Your task to perform on an android device: check out phone information Image 0: 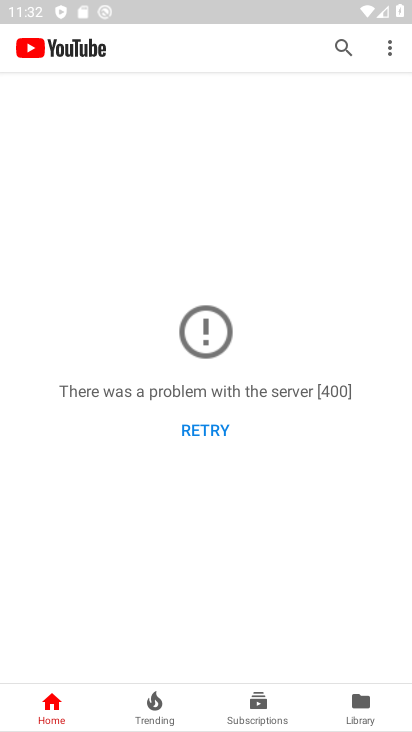
Step 0: press back button
Your task to perform on an android device: check out phone information Image 1: 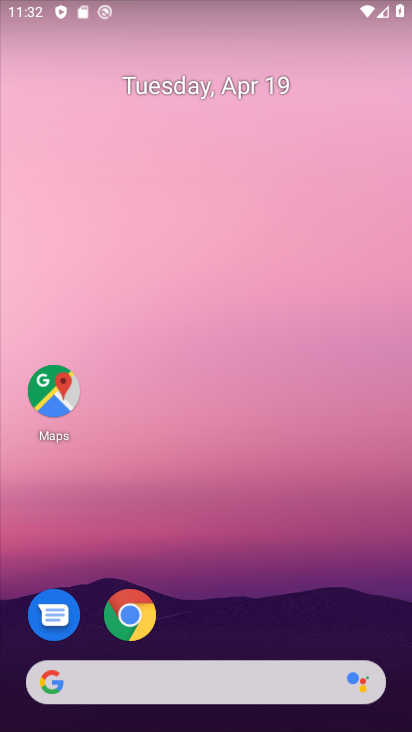
Step 1: drag from (257, 653) to (363, 108)
Your task to perform on an android device: check out phone information Image 2: 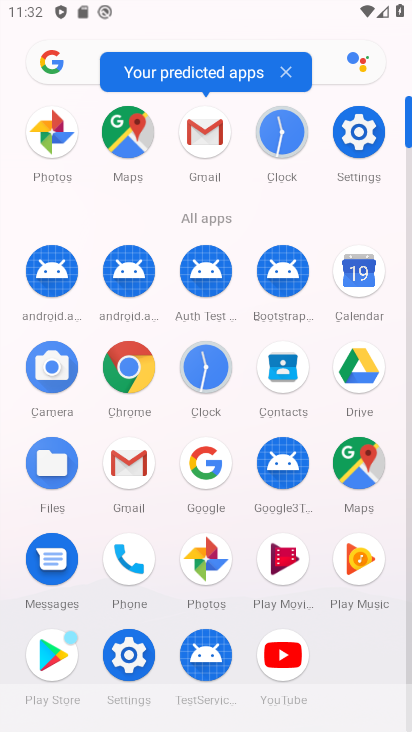
Step 2: click (357, 129)
Your task to perform on an android device: check out phone information Image 3: 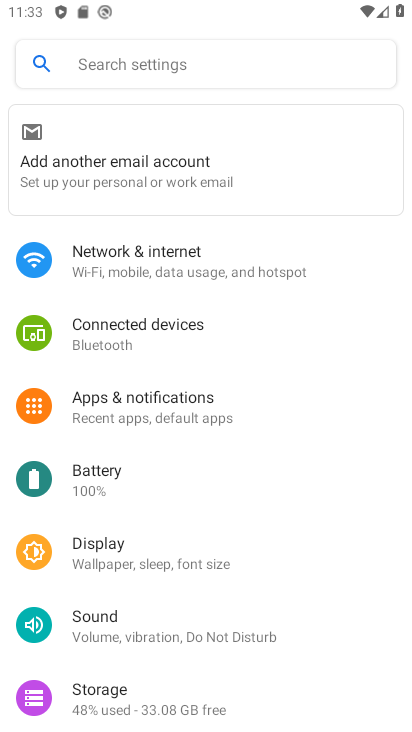
Step 3: drag from (218, 387) to (293, 96)
Your task to perform on an android device: check out phone information Image 4: 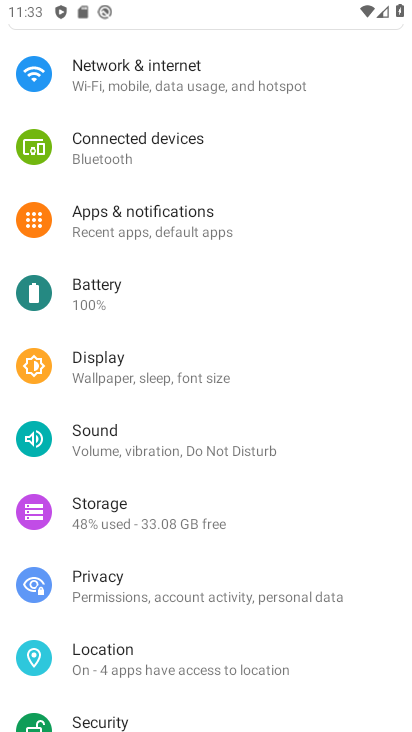
Step 4: drag from (257, 456) to (345, 183)
Your task to perform on an android device: check out phone information Image 5: 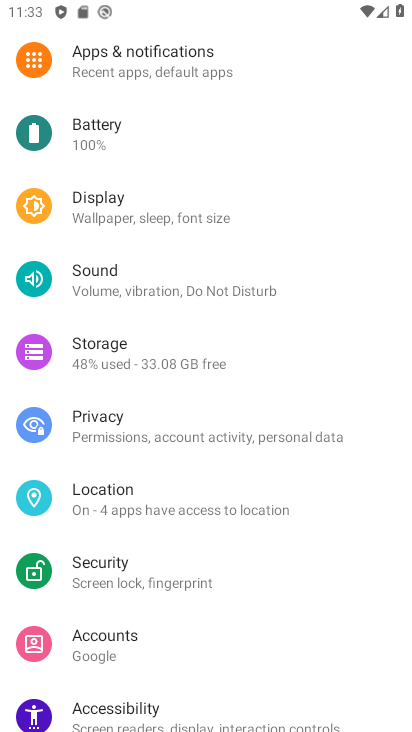
Step 5: drag from (229, 599) to (377, 150)
Your task to perform on an android device: check out phone information Image 6: 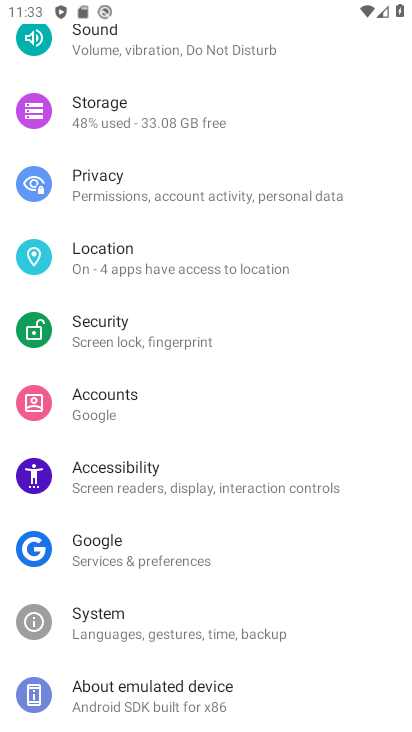
Step 6: drag from (274, 544) to (355, 275)
Your task to perform on an android device: check out phone information Image 7: 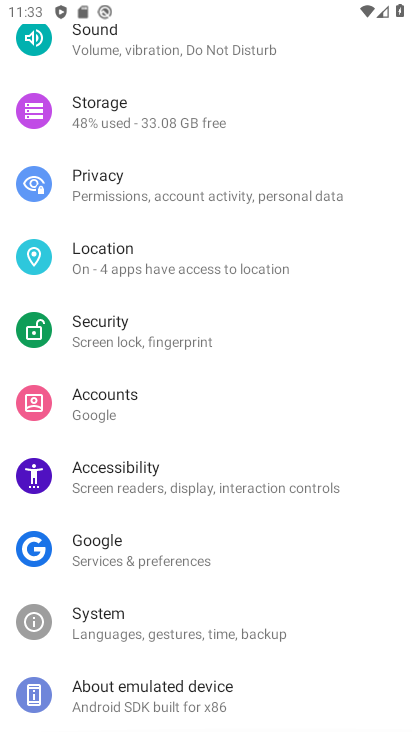
Step 7: click (255, 686)
Your task to perform on an android device: check out phone information Image 8: 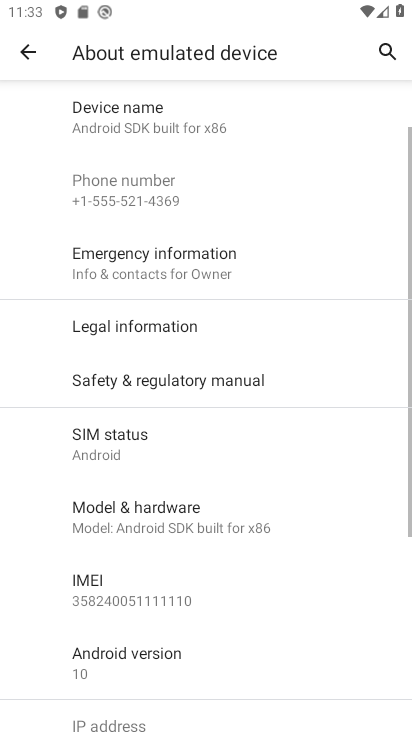
Step 8: task complete